Your task to perform on an android device: toggle notifications settings in the gmail app Image 0: 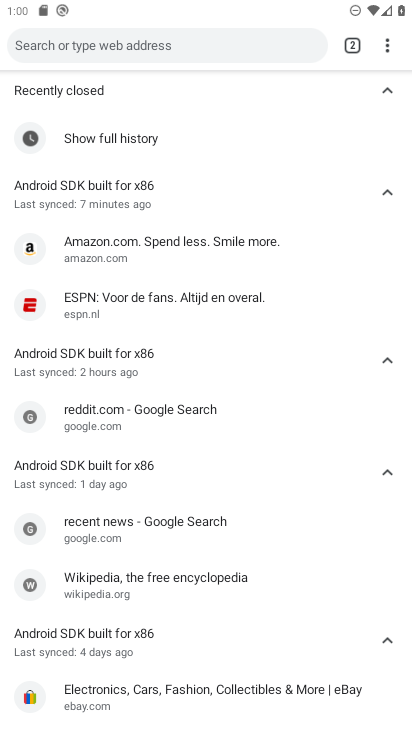
Step 0: press home button
Your task to perform on an android device: toggle notifications settings in the gmail app Image 1: 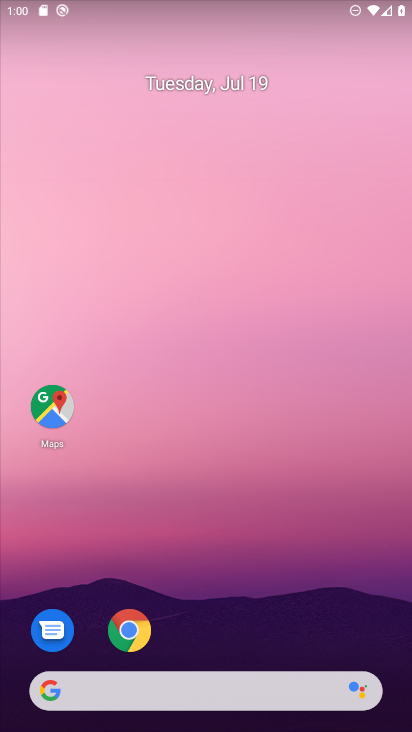
Step 1: drag from (177, 667) to (278, 146)
Your task to perform on an android device: toggle notifications settings in the gmail app Image 2: 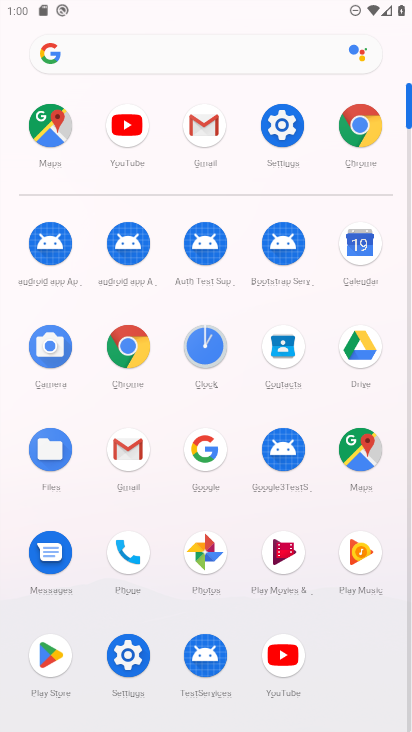
Step 2: click (206, 133)
Your task to perform on an android device: toggle notifications settings in the gmail app Image 3: 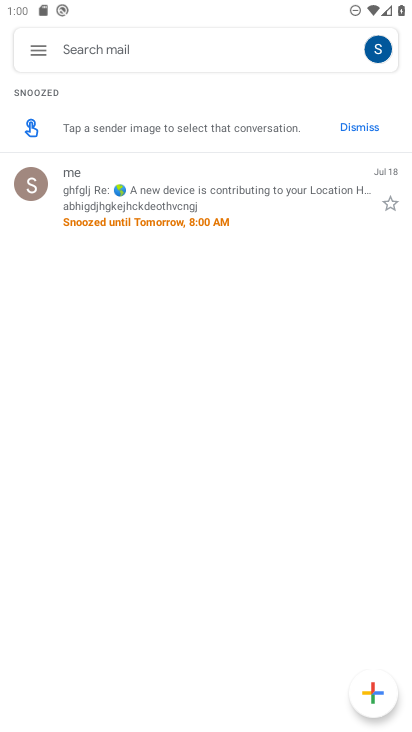
Step 3: click (41, 52)
Your task to perform on an android device: toggle notifications settings in the gmail app Image 4: 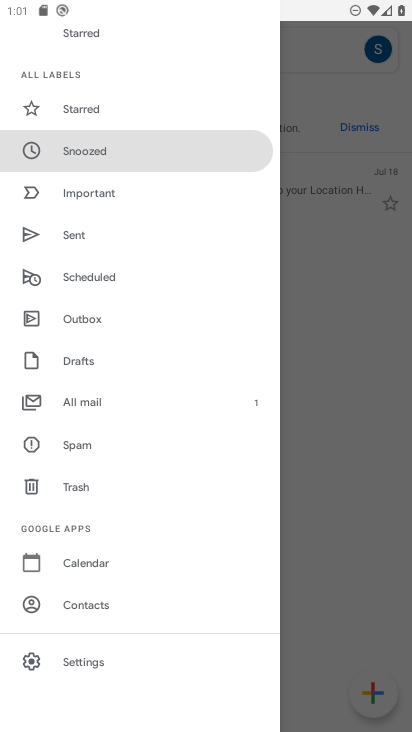
Step 4: click (97, 660)
Your task to perform on an android device: toggle notifications settings in the gmail app Image 5: 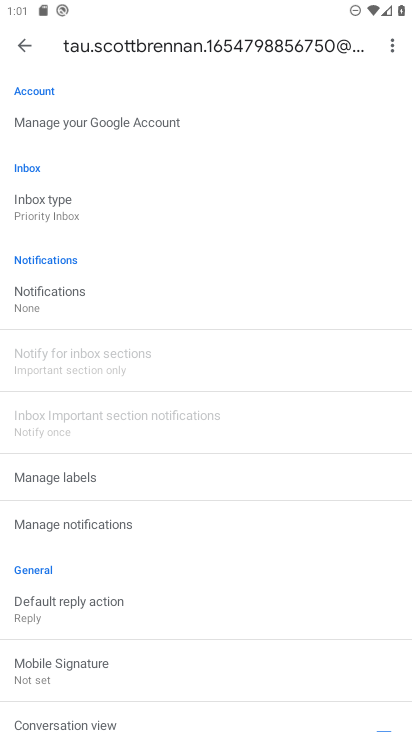
Step 5: click (53, 299)
Your task to perform on an android device: toggle notifications settings in the gmail app Image 6: 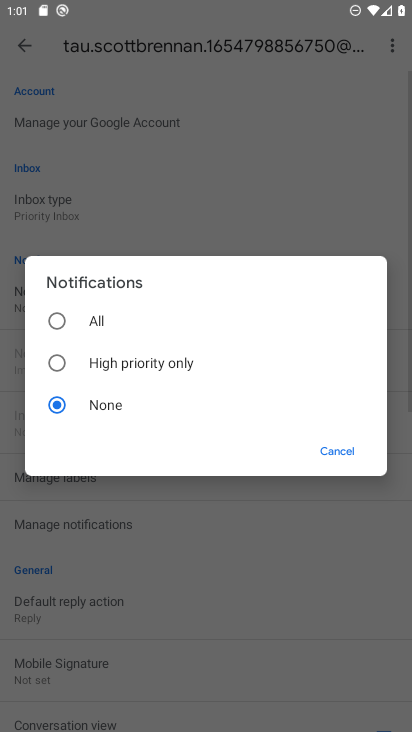
Step 6: click (57, 316)
Your task to perform on an android device: toggle notifications settings in the gmail app Image 7: 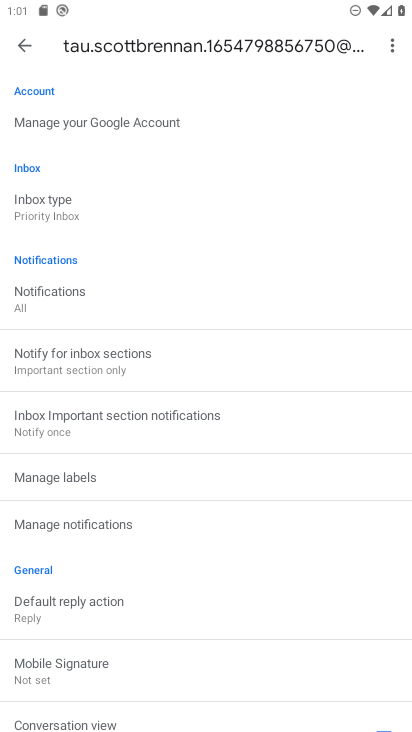
Step 7: task complete